Your task to perform on an android device: open a bookmark in the chrome app Image 0: 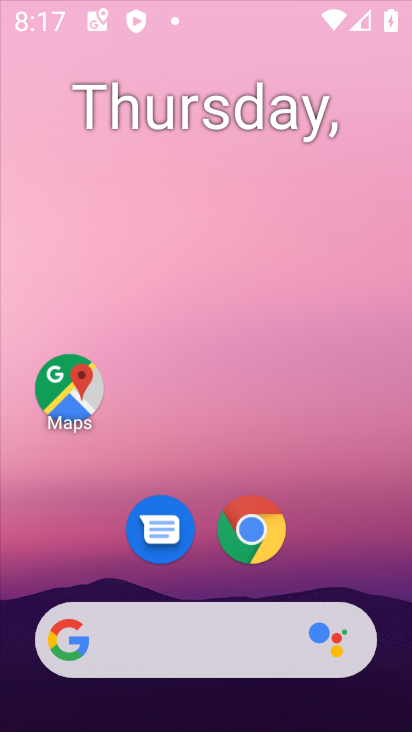
Step 0: drag from (210, 61) to (167, 73)
Your task to perform on an android device: open a bookmark in the chrome app Image 1: 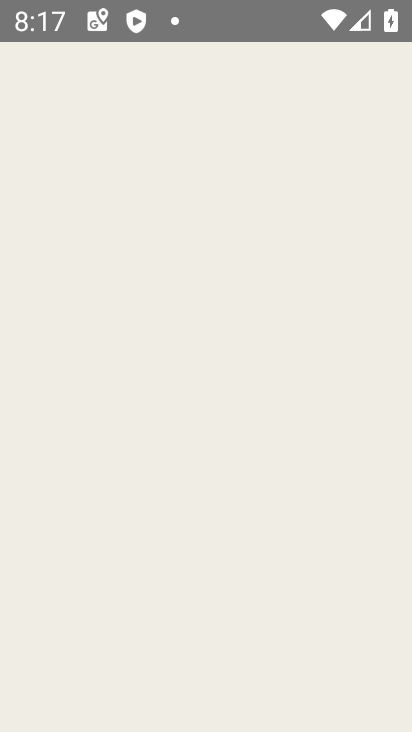
Step 1: press home button
Your task to perform on an android device: open a bookmark in the chrome app Image 2: 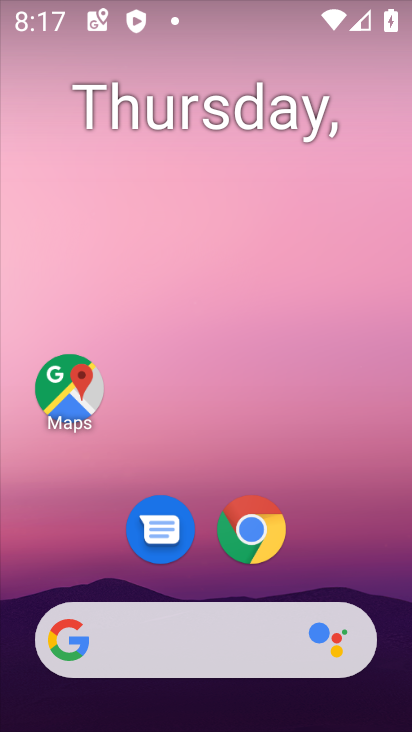
Step 2: click (247, 547)
Your task to perform on an android device: open a bookmark in the chrome app Image 3: 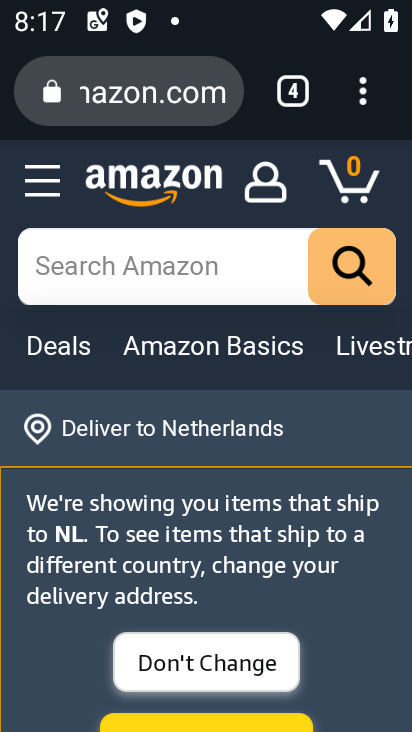
Step 3: click (363, 101)
Your task to perform on an android device: open a bookmark in the chrome app Image 4: 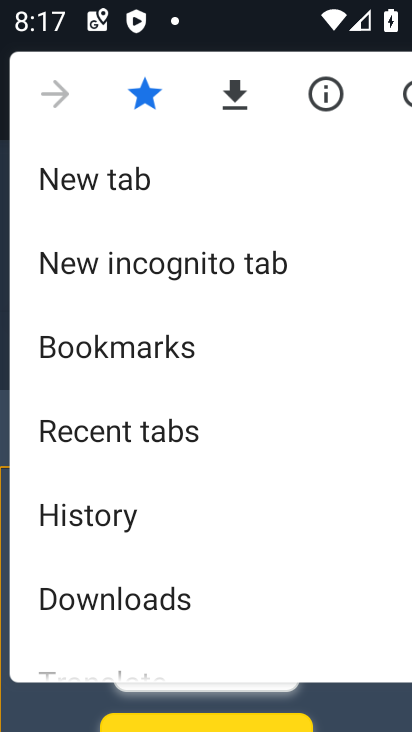
Step 4: click (117, 338)
Your task to perform on an android device: open a bookmark in the chrome app Image 5: 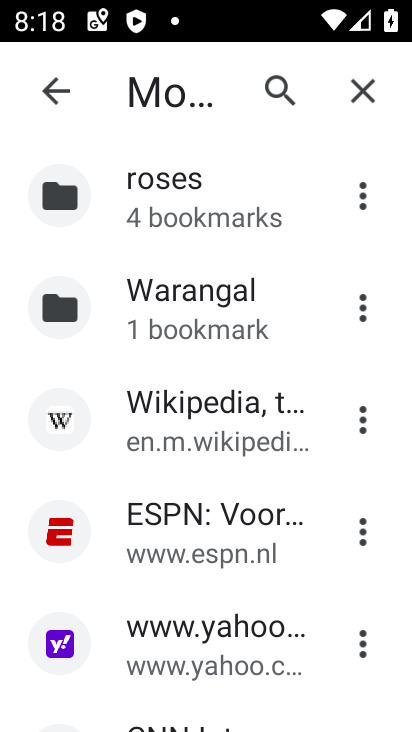
Step 5: click (179, 505)
Your task to perform on an android device: open a bookmark in the chrome app Image 6: 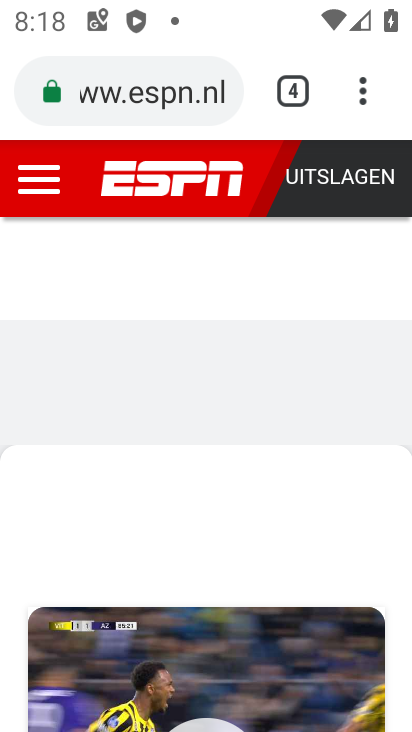
Step 6: task complete